Your task to perform on an android device: turn on wifi Image 0: 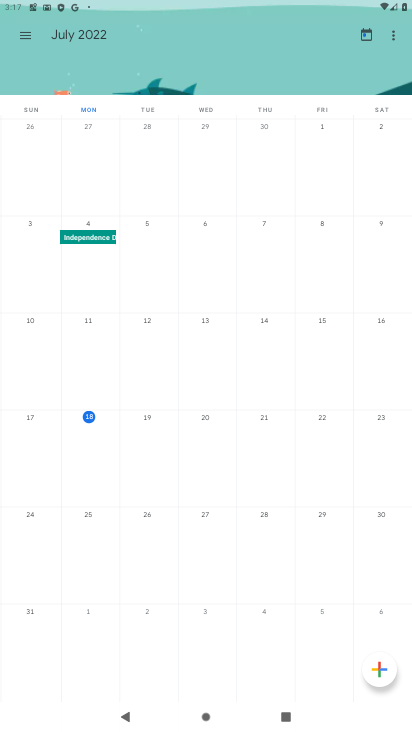
Step 0: press home button
Your task to perform on an android device: turn on wifi Image 1: 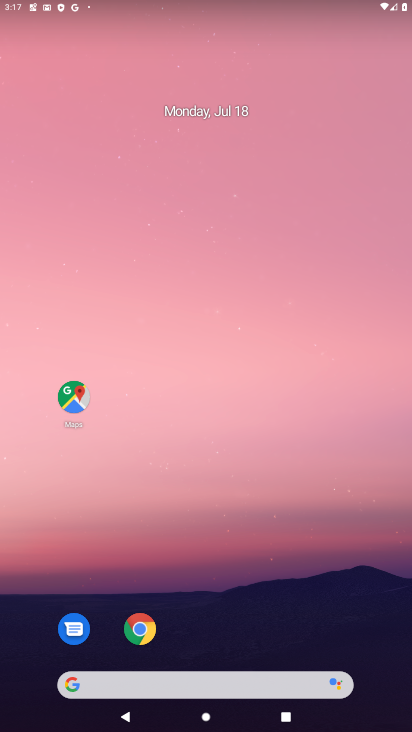
Step 1: drag from (199, 670) to (209, 312)
Your task to perform on an android device: turn on wifi Image 2: 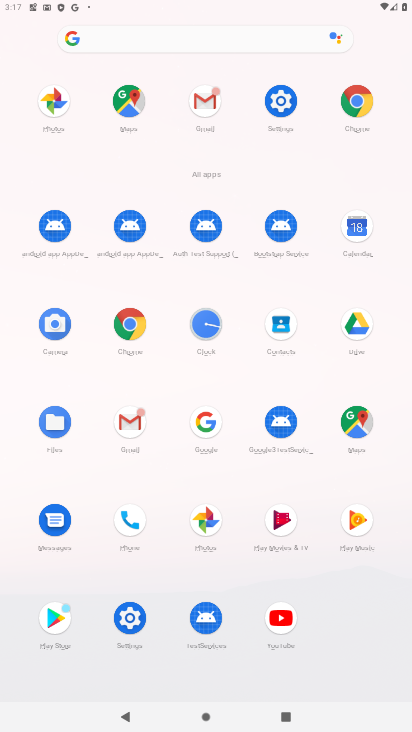
Step 2: click (281, 99)
Your task to perform on an android device: turn on wifi Image 3: 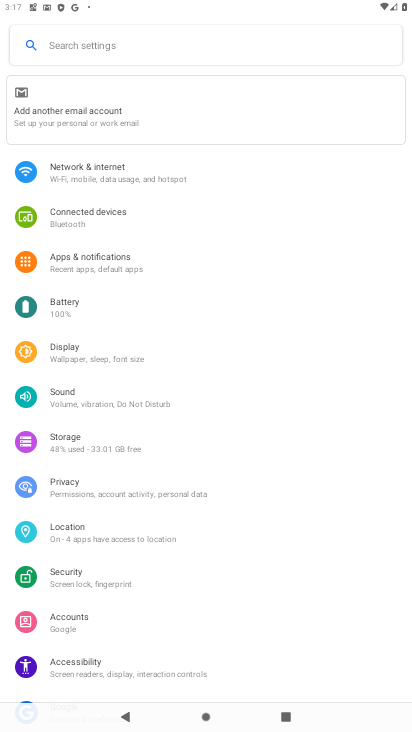
Step 3: click (109, 175)
Your task to perform on an android device: turn on wifi Image 4: 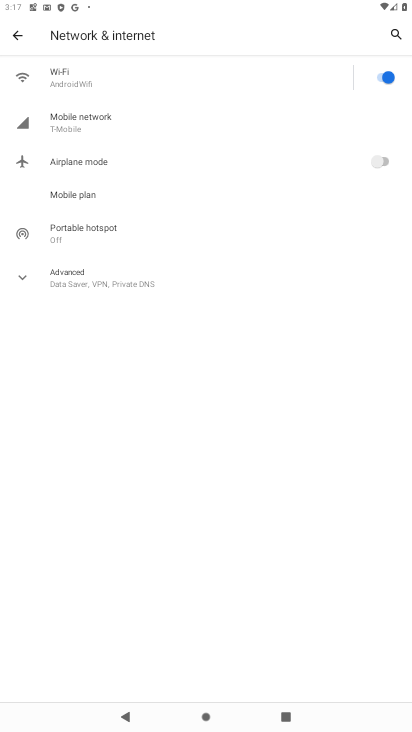
Step 4: task complete